Your task to perform on an android device: Open calendar and show me the fourth week of next month Image 0: 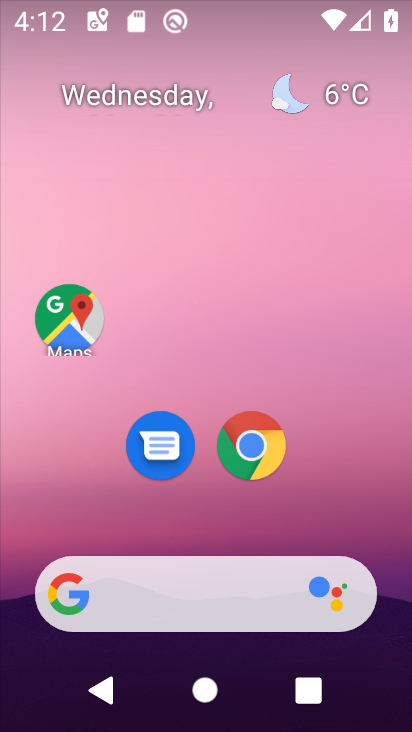
Step 0: drag from (201, 516) to (287, 92)
Your task to perform on an android device: Open calendar and show me the fourth week of next month Image 1: 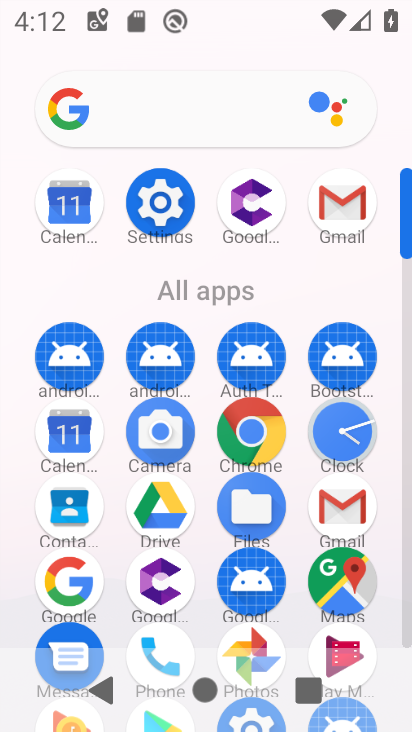
Step 1: click (77, 422)
Your task to perform on an android device: Open calendar and show me the fourth week of next month Image 2: 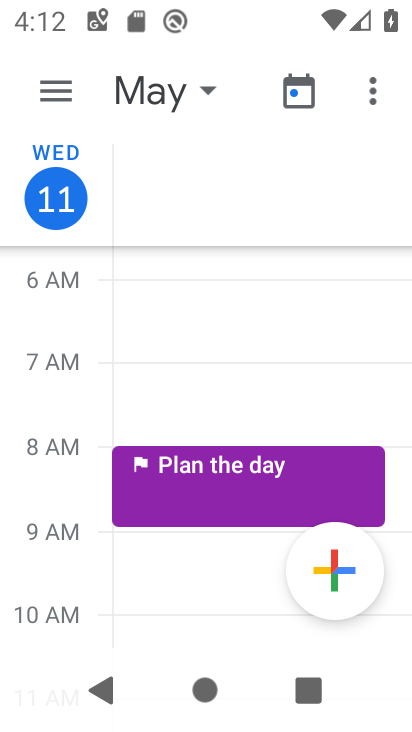
Step 2: click (56, 83)
Your task to perform on an android device: Open calendar and show me the fourth week of next month Image 3: 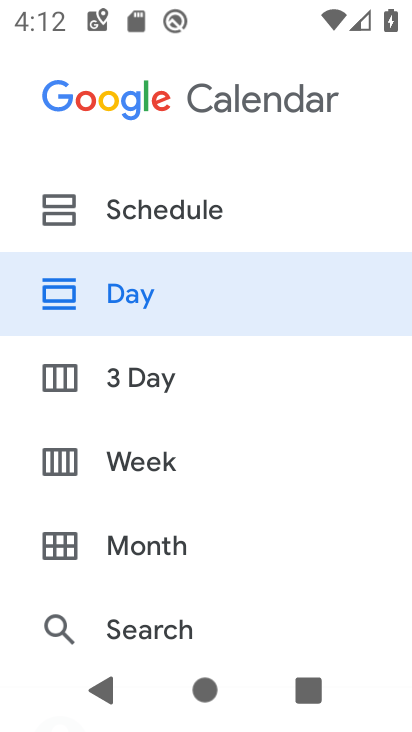
Step 3: click (156, 461)
Your task to perform on an android device: Open calendar and show me the fourth week of next month Image 4: 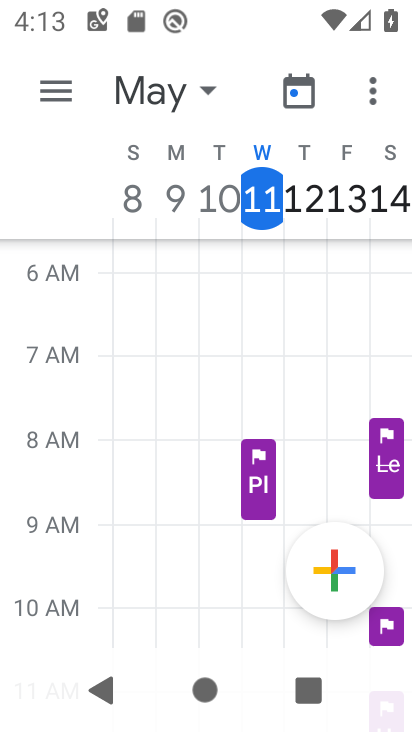
Step 4: task complete